Your task to perform on an android device: Go to network settings Image 0: 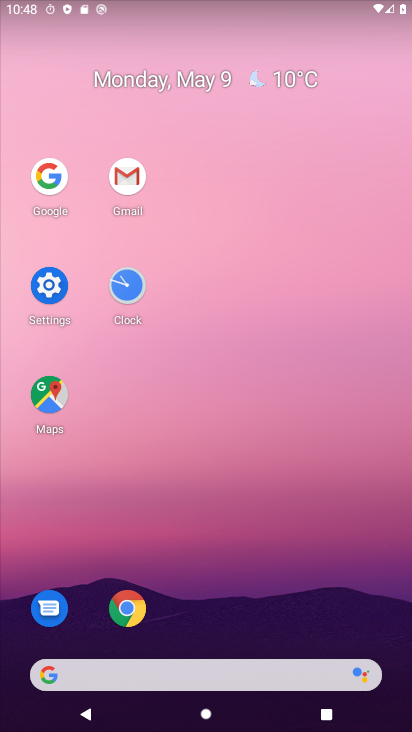
Step 0: click (47, 274)
Your task to perform on an android device: Go to network settings Image 1: 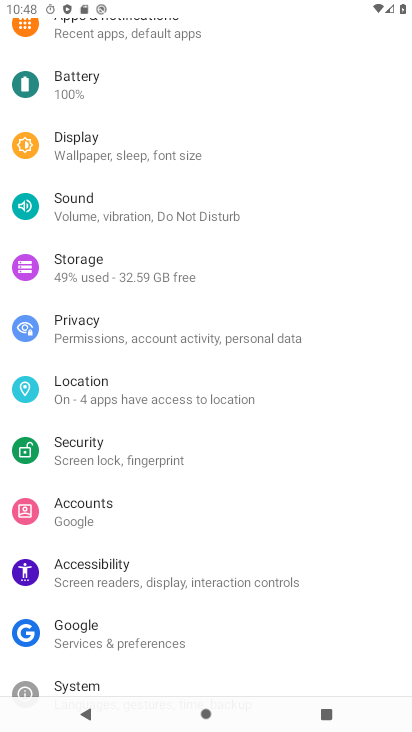
Step 1: drag from (229, 256) to (139, 579)
Your task to perform on an android device: Go to network settings Image 2: 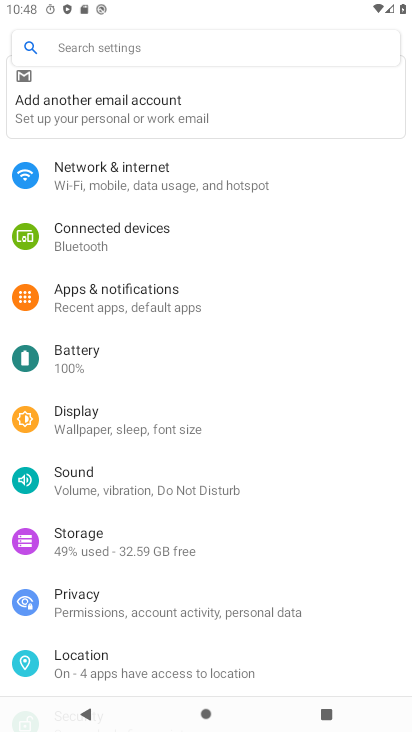
Step 2: click (155, 160)
Your task to perform on an android device: Go to network settings Image 3: 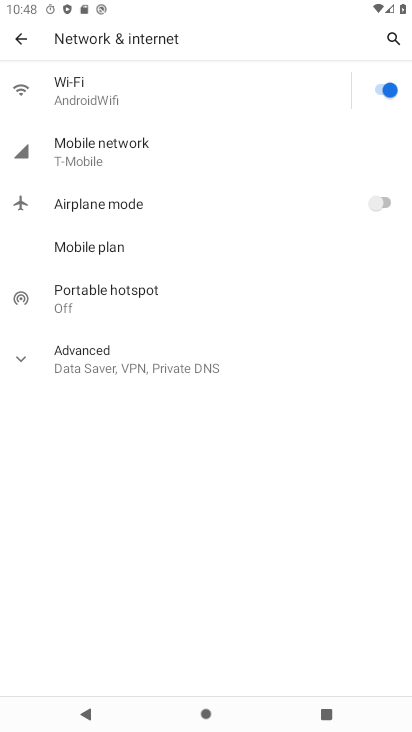
Step 3: click (152, 166)
Your task to perform on an android device: Go to network settings Image 4: 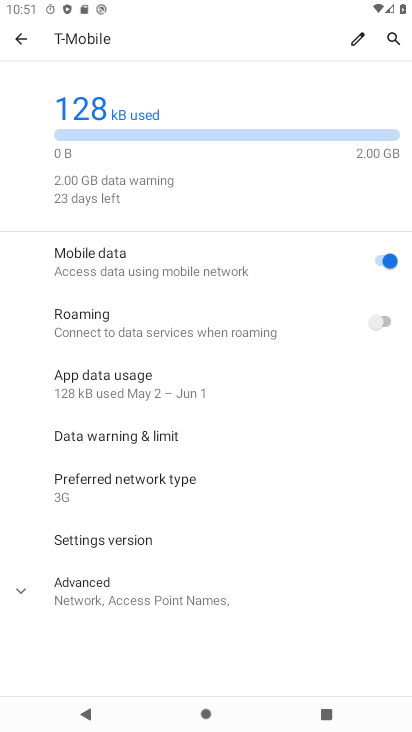
Step 4: task complete